Your task to perform on an android device: uninstall "Contacts" Image 0: 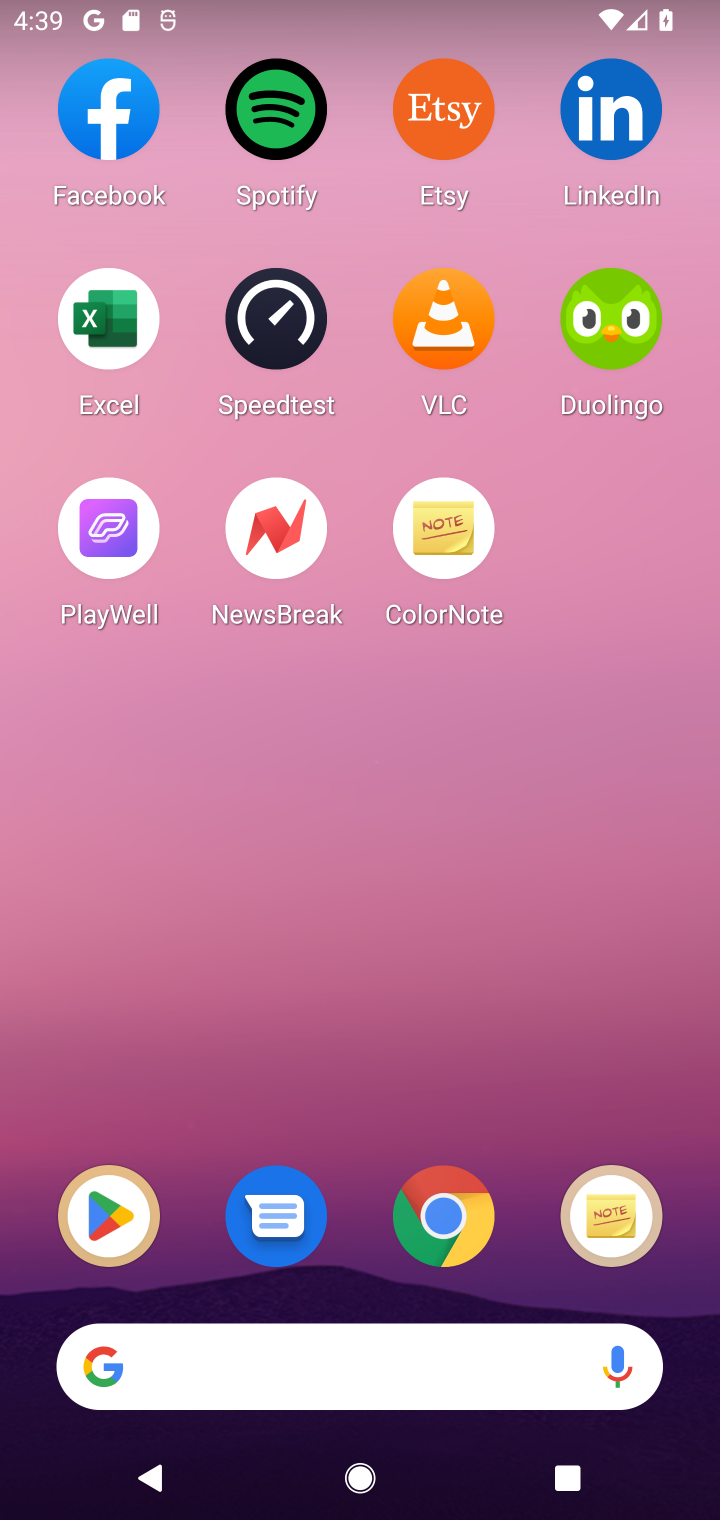
Step 0: drag from (340, 1313) to (570, 155)
Your task to perform on an android device: uninstall "Contacts" Image 1: 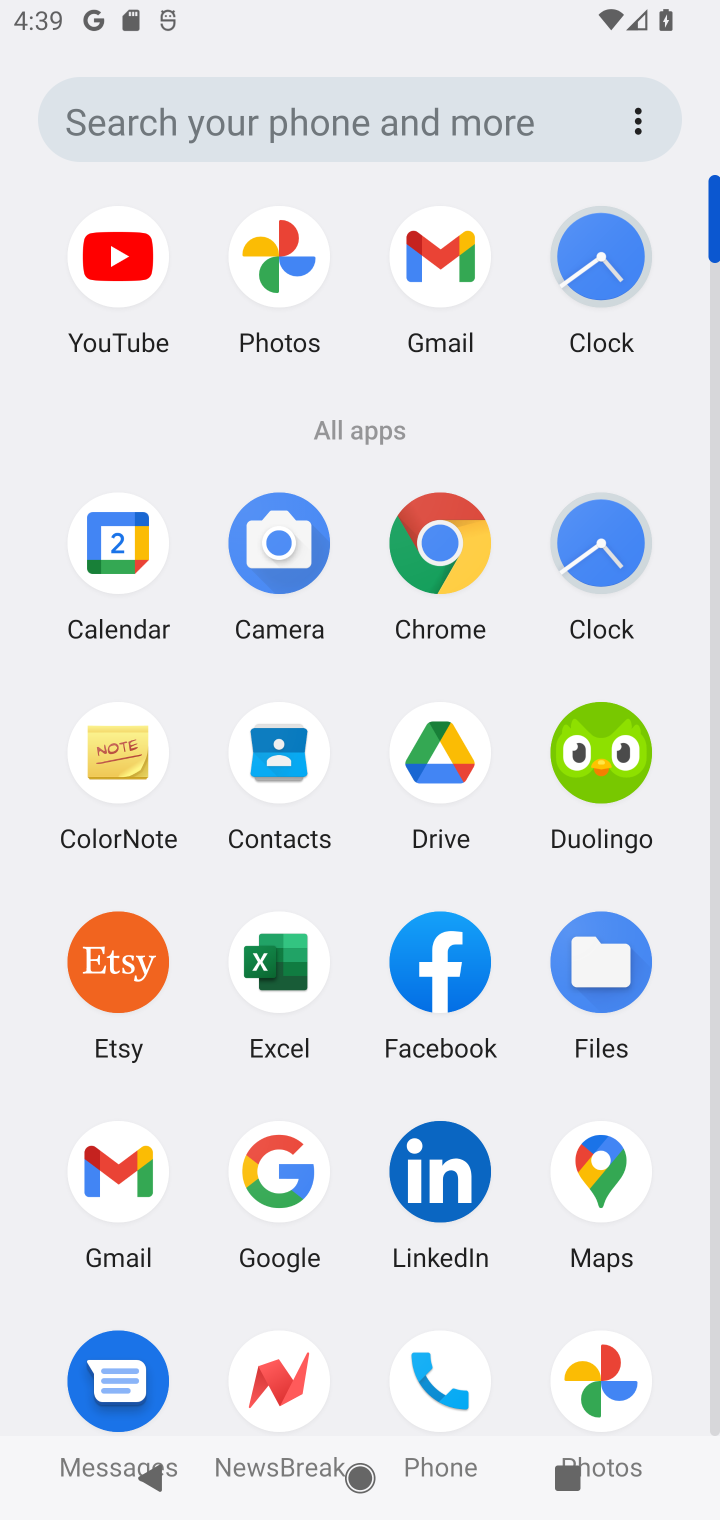
Step 1: click (294, 761)
Your task to perform on an android device: uninstall "Contacts" Image 2: 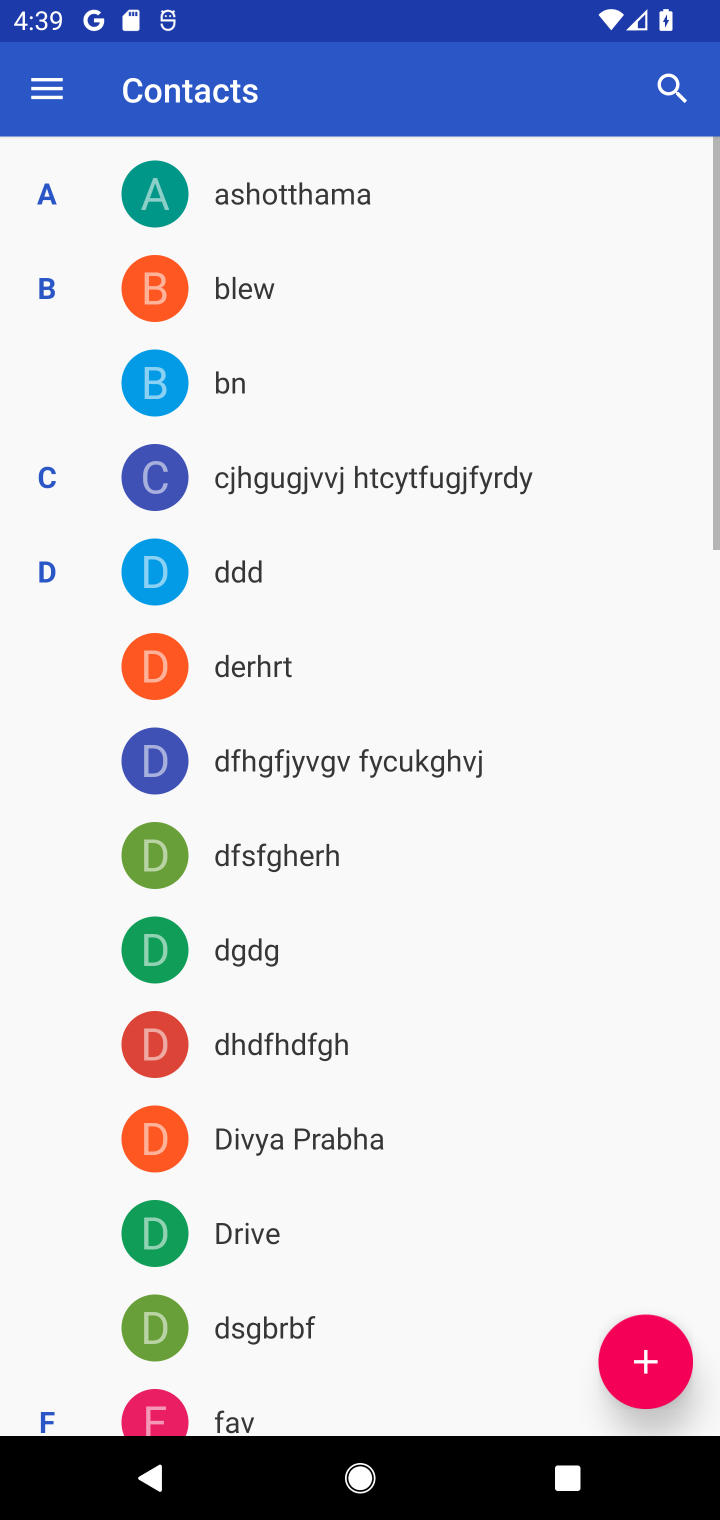
Step 2: task complete